Your task to perform on an android device: Go to accessibility settings Image 0: 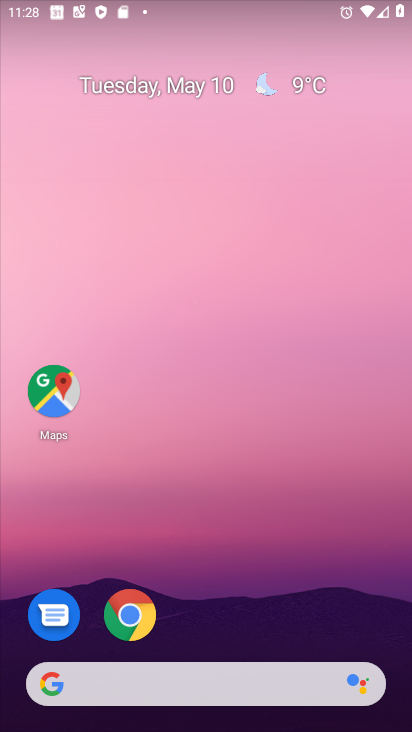
Step 0: press home button
Your task to perform on an android device: Go to accessibility settings Image 1: 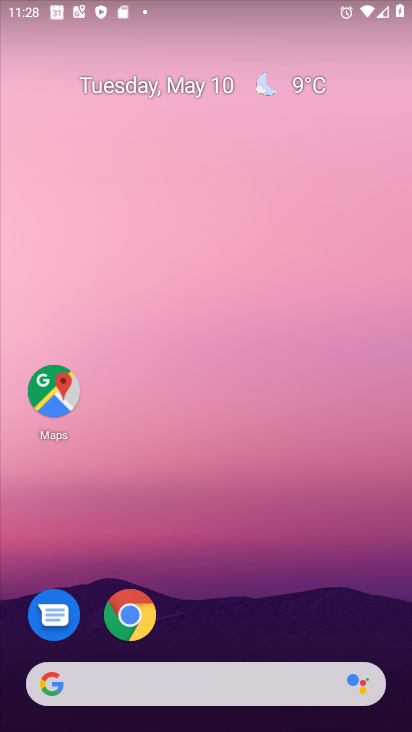
Step 1: drag from (209, 640) to (220, 65)
Your task to perform on an android device: Go to accessibility settings Image 2: 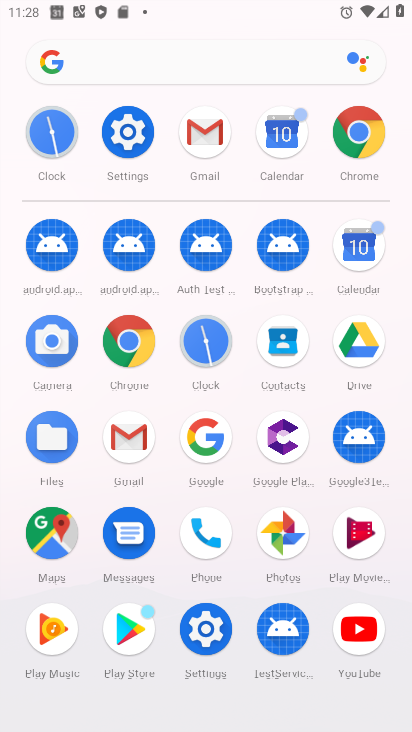
Step 2: click (124, 126)
Your task to perform on an android device: Go to accessibility settings Image 3: 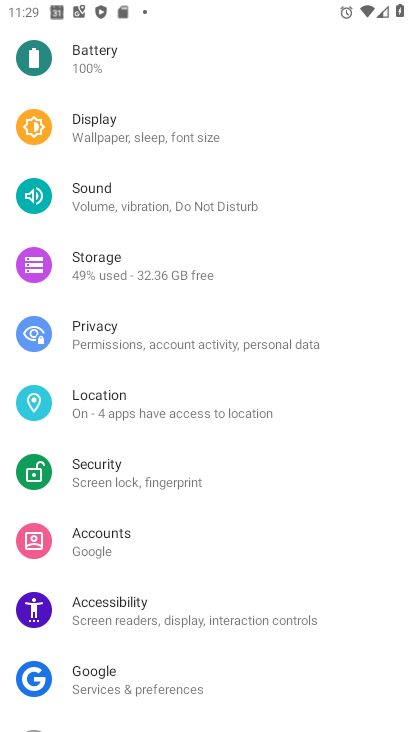
Step 3: click (125, 601)
Your task to perform on an android device: Go to accessibility settings Image 4: 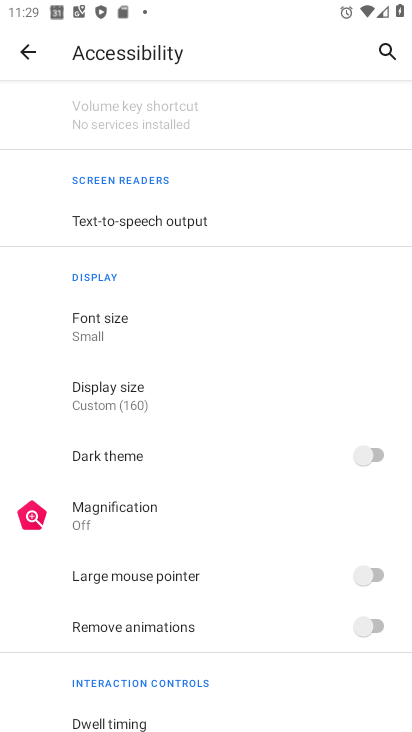
Step 4: task complete